Your task to perform on an android device: What's the weather? Image 0: 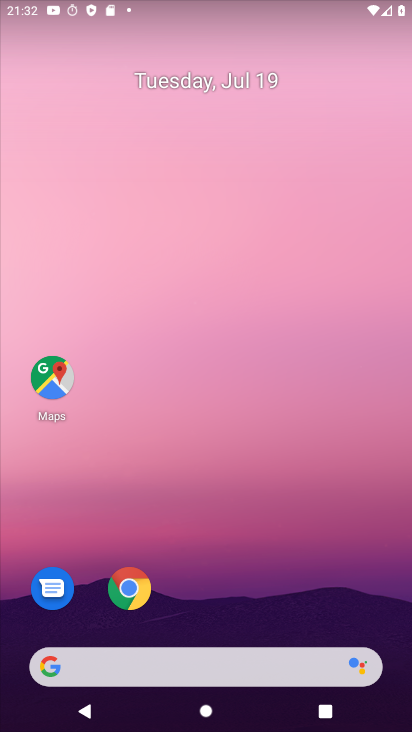
Step 0: press home button
Your task to perform on an android device: What's the weather? Image 1: 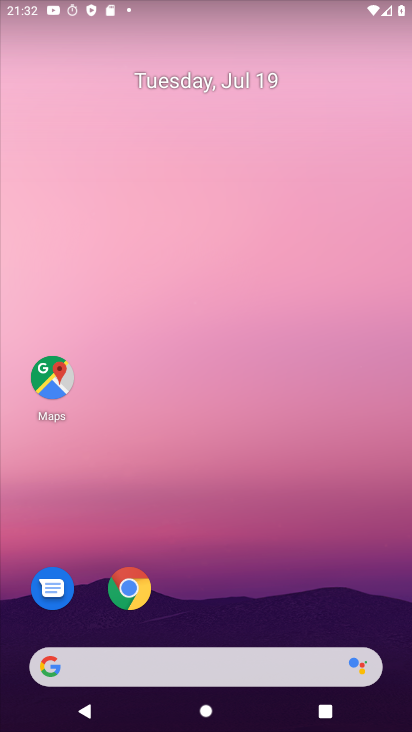
Step 1: drag from (12, 457) to (410, 467)
Your task to perform on an android device: What's the weather? Image 2: 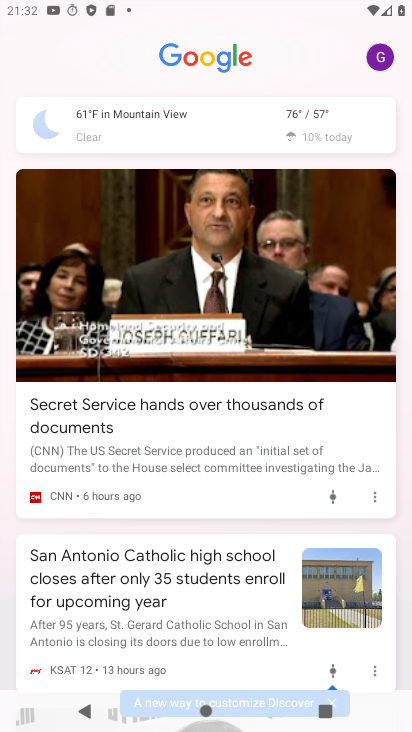
Step 2: click (262, 123)
Your task to perform on an android device: What's the weather? Image 3: 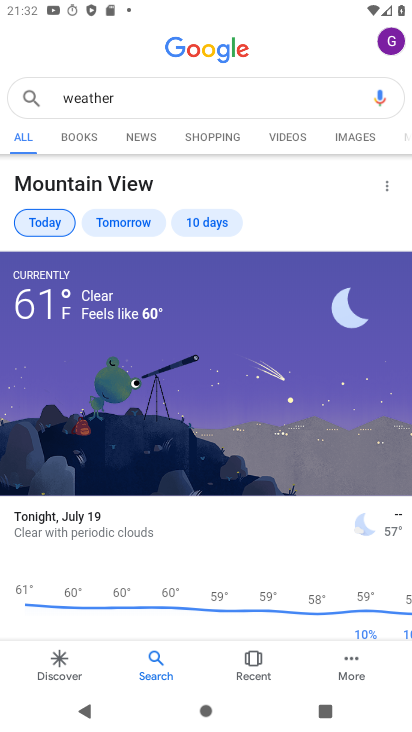
Step 3: task complete